Your task to perform on an android device: turn on showing notifications on the lock screen Image 0: 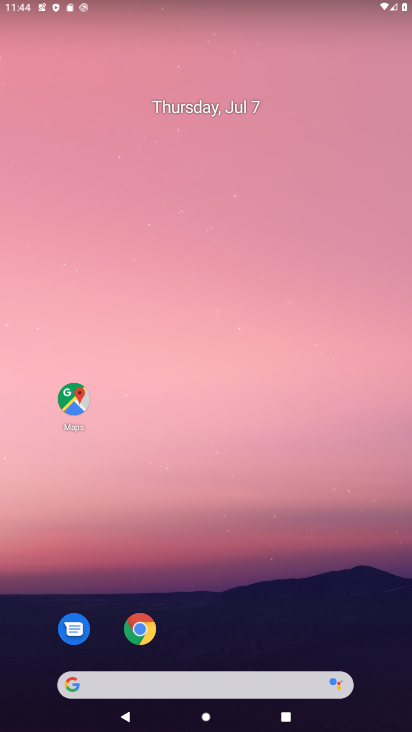
Step 0: drag from (335, 639) to (289, 78)
Your task to perform on an android device: turn on showing notifications on the lock screen Image 1: 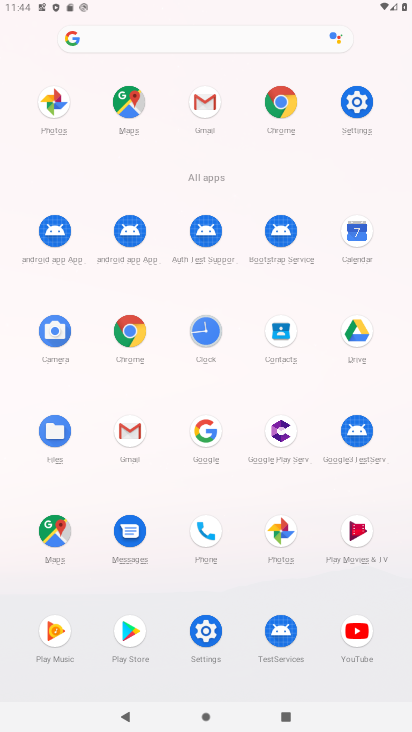
Step 1: click (208, 631)
Your task to perform on an android device: turn on showing notifications on the lock screen Image 2: 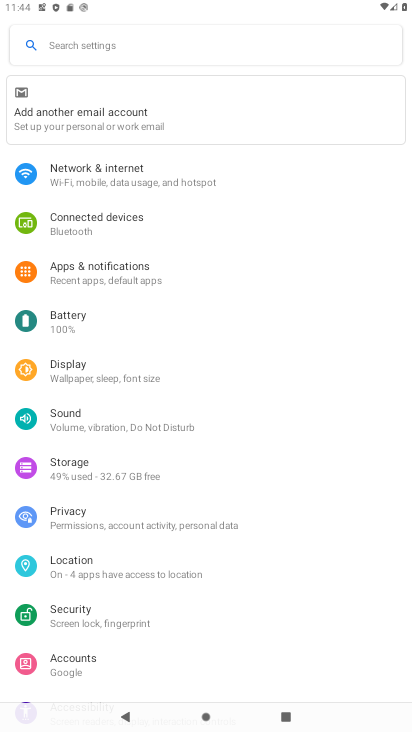
Step 2: click (86, 264)
Your task to perform on an android device: turn on showing notifications on the lock screen Image 3: 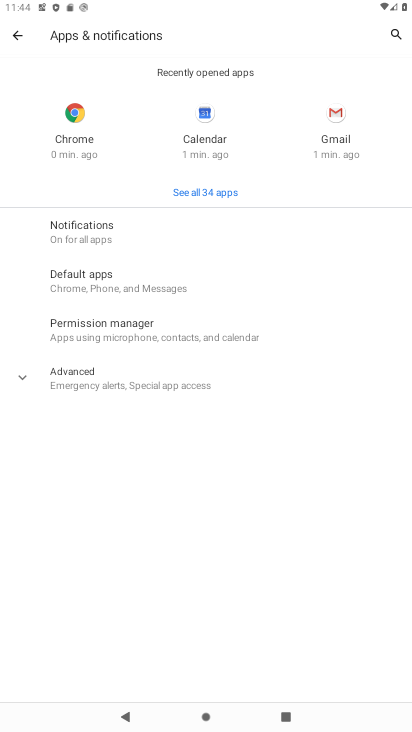
Step 3: click (71, 224)
Your task to perform on an android device: turn on showing notifications on the lock screen Image 4: 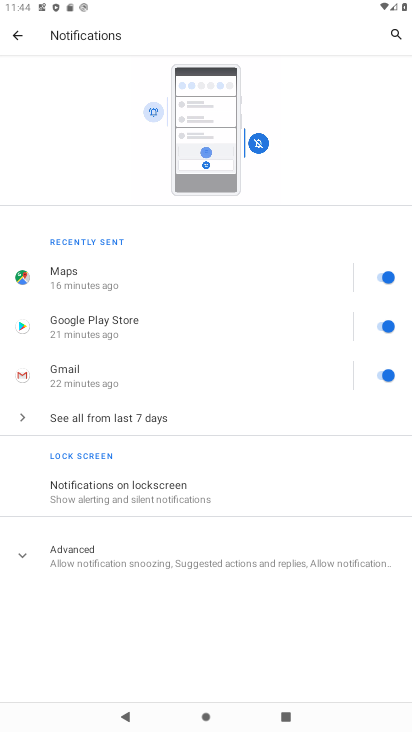
Step 4: click (113, 498)
Your task to perform on an android device: turn on showing notifications on the lock screen Image 5: 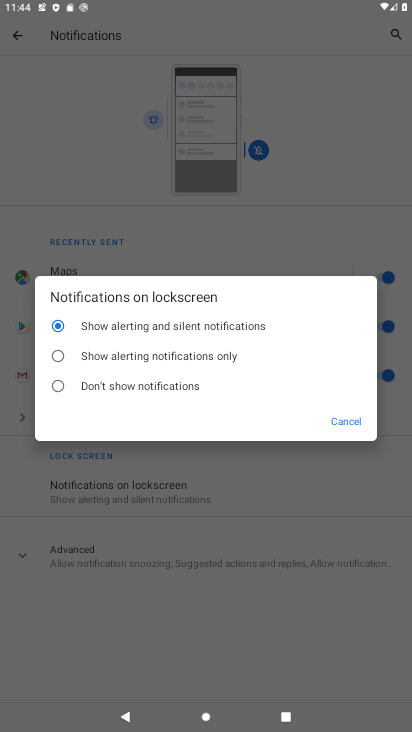
Step 5: task complete